Your task to perform on an android device: empty trash in google photos Image 0: 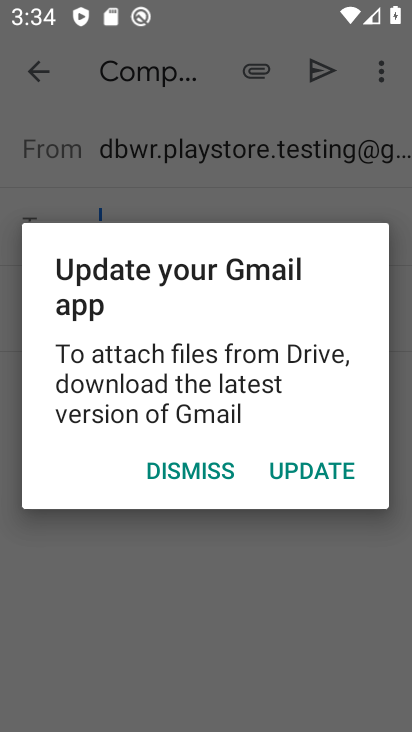
Step 0: click (186, 469)
Your task to perform on an android device: empty trash in google photos Image 1: 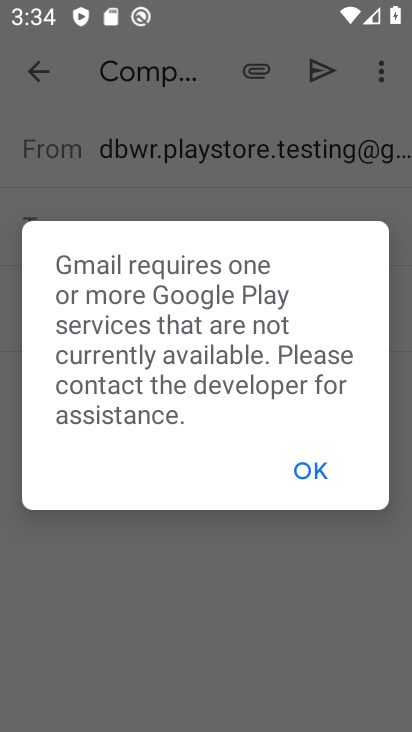
Step 1: click (316, 468)
Your task to perform on an android device: empty trash in google photos Image 2: 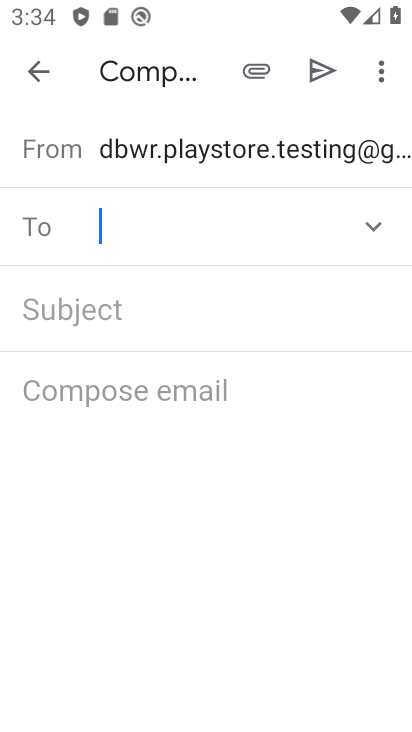
Step 2: press home button
Your task to perform on an android device: empty trash in google photos Image 3: 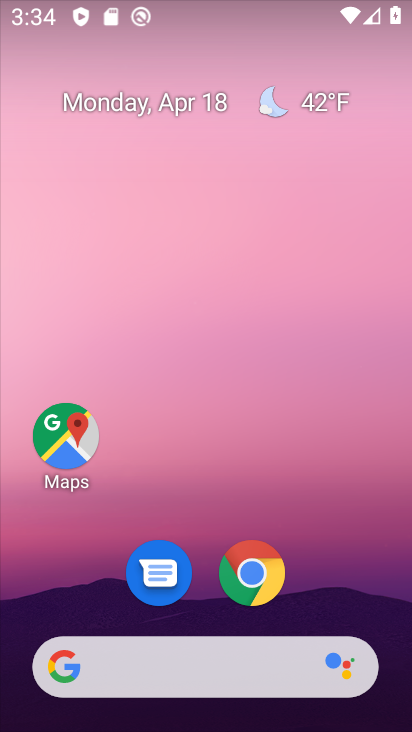
Step 3: drag from (222, 635) to (284, 121)
Your task to perform on an android device: empty trash in google photos Image 4: 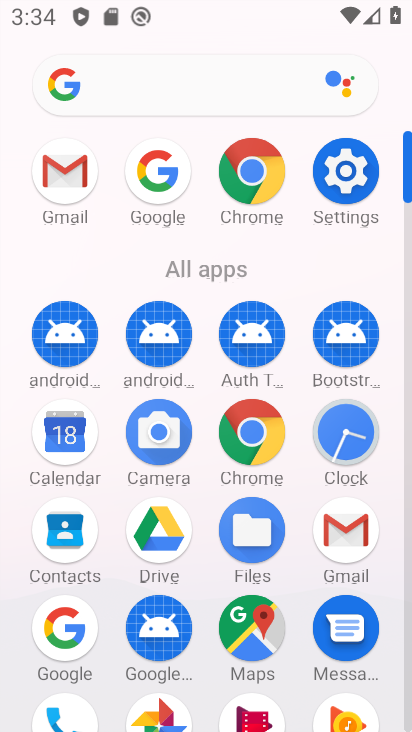
Step 4: click (157, 709)
Your task to perform on an android device: empty trash in google photos Image 5: 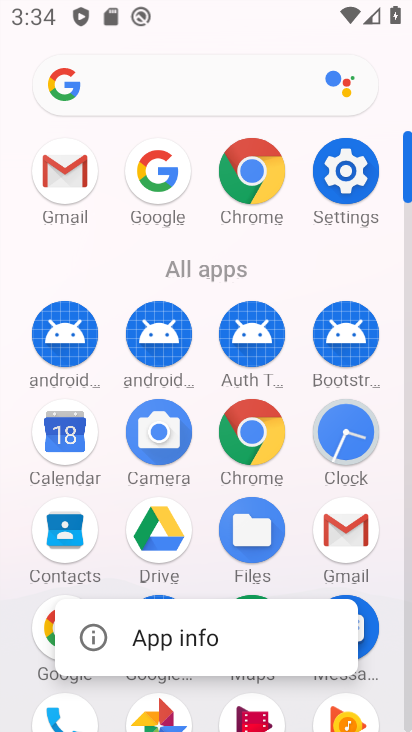
Step 5: click (157, 710)
Your task to perform on an android device: empty trash in google photos Image 6: 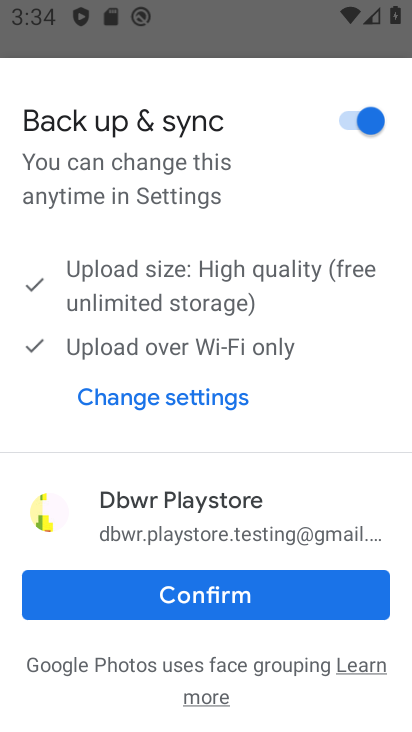
Step 6: click (213, 586)
Your task to perform on an android device: empty trash in google photos Image 7: 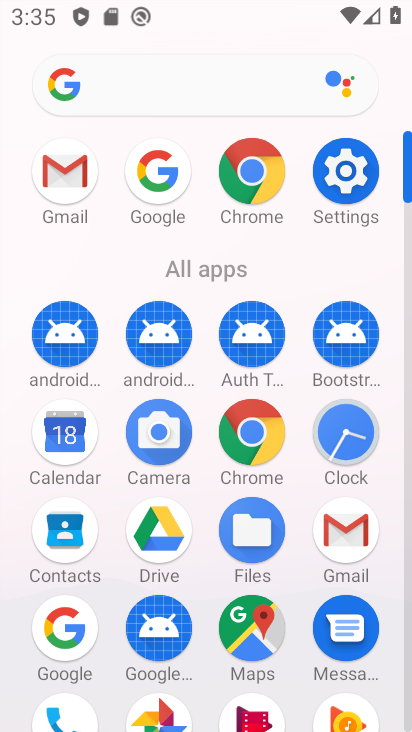
Step 7: click (166, 717)
Your task to perform on an android device: empty trash in google photos Image 8: 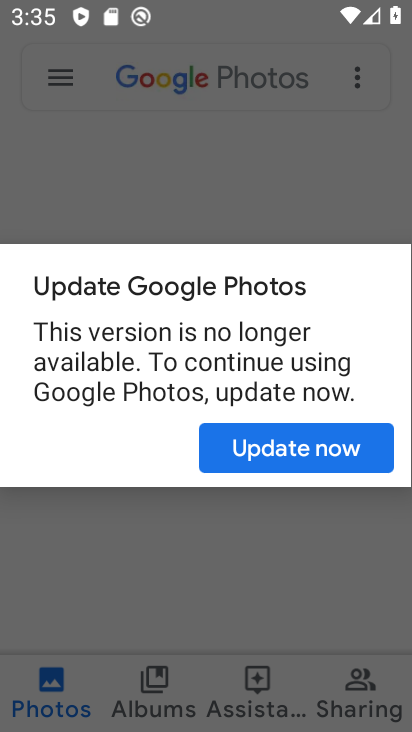
Step 8: click (263, 453)
Your task to perform on an android device: empty trash in google photos Image 9: 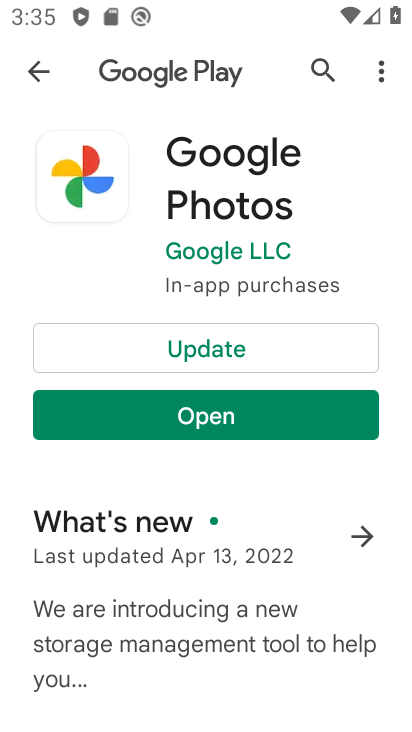
Step 9: click (227, 413)
Your task to perform on an android device: empty trash in google photos Image 10: 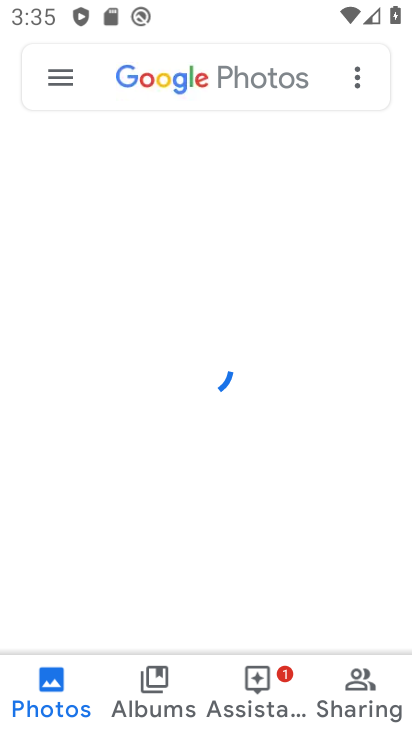
Step 10: click (55, 84)
Your task to perform on an android device: empty trash in google photos Image 11: 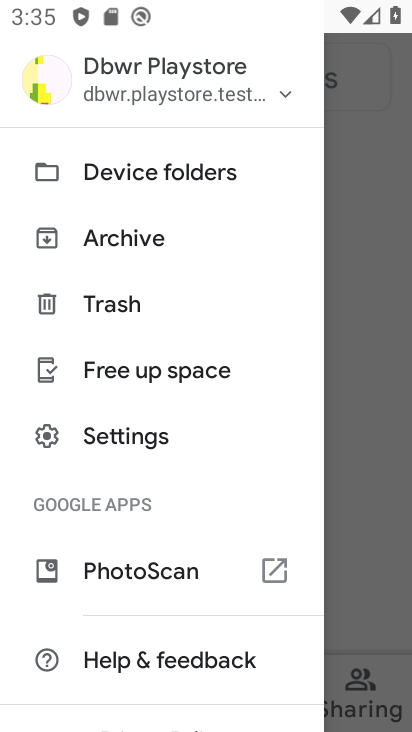
Step 11: click (102, 309)
Your task to perform on an android device: empty trash in google photos Image 12: 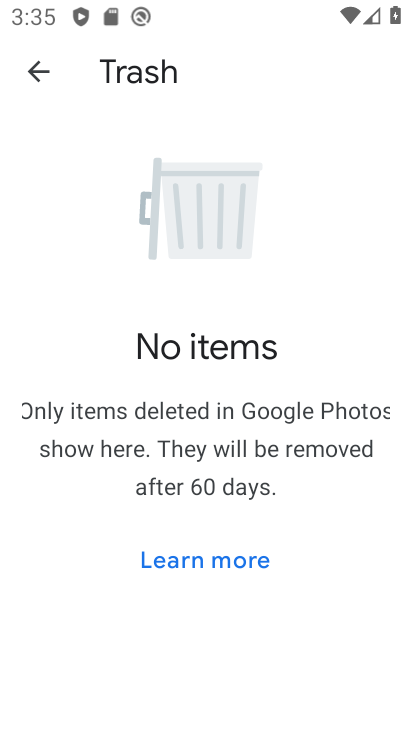
Step 12: task complete